Your task to perform on an android device: install app "Google Find My Device" Image 0: 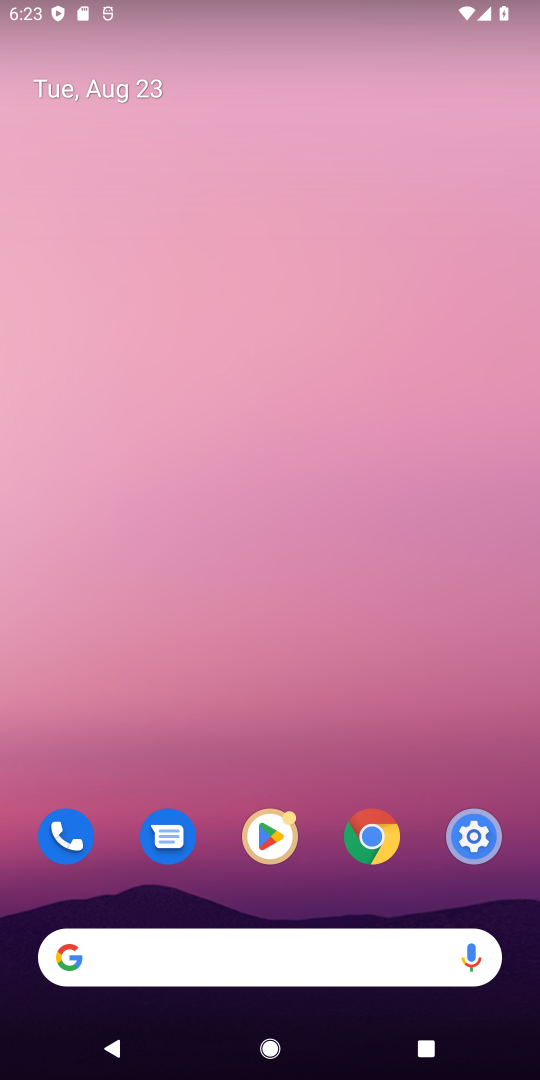
Step 0: click (270, 838)
Your task to perform on an android device: install app "Google Find My Device" Image 1: 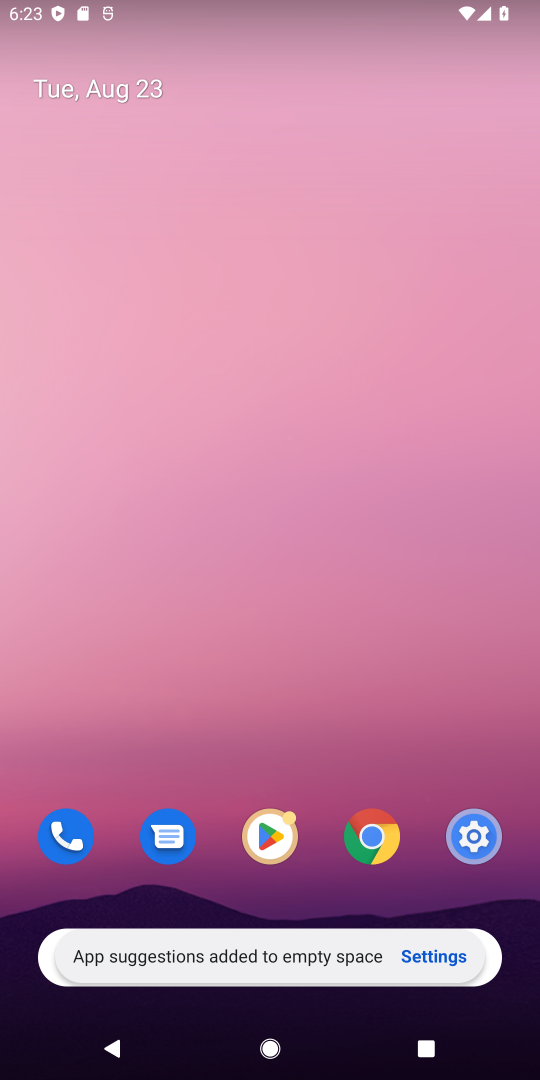
Step 1: click (270, 841)
Your task to perform on an android device: install app "Google Find My Device" Image 2: 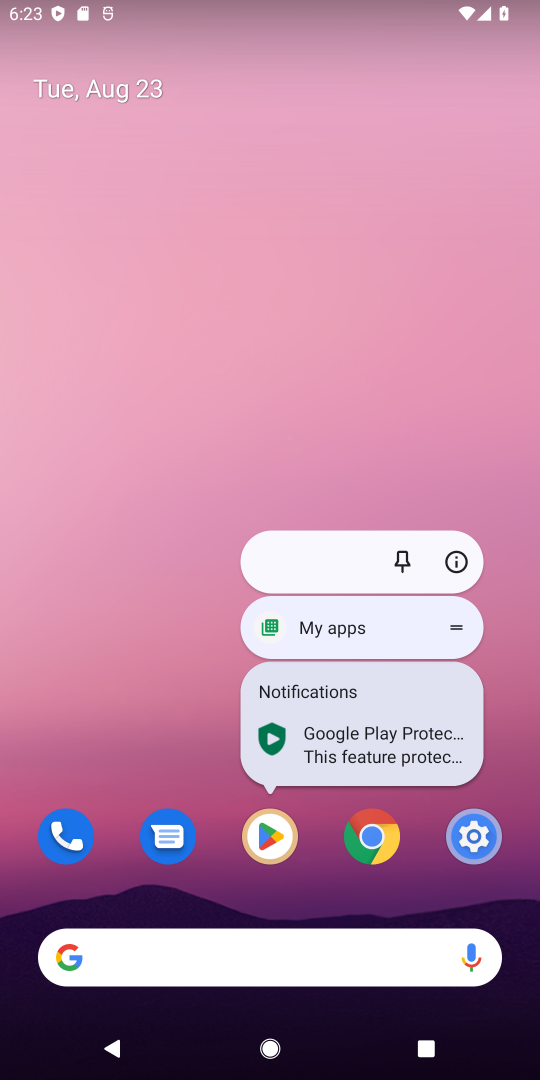
Step 2: click (270, 845)
Your task to perform on an android device: install app "Google Find My Device" Image 3: 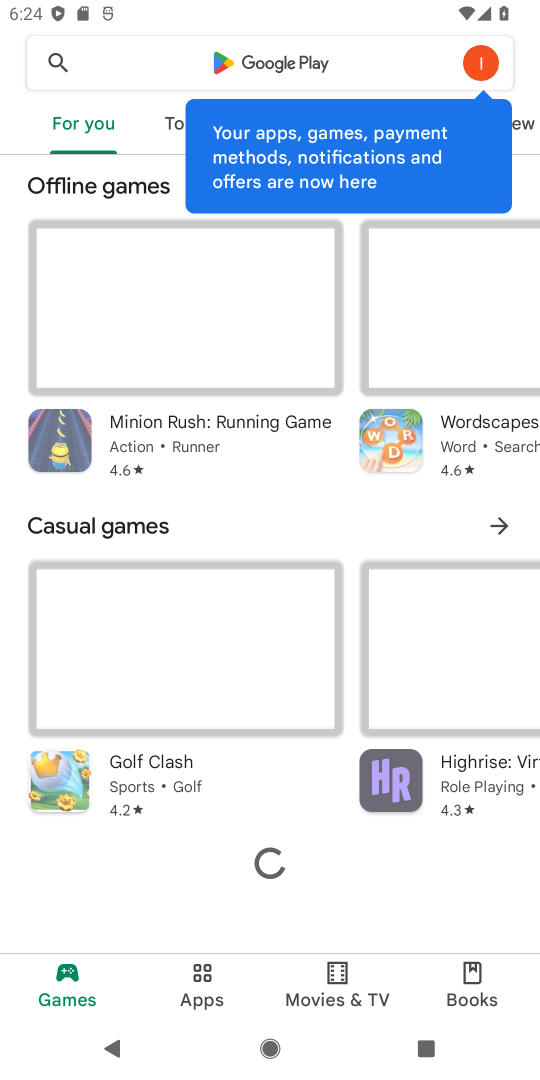
Step 3: click (285, 59)
Your task to perform on an android device: install app "Google Find My Device" Image 4: 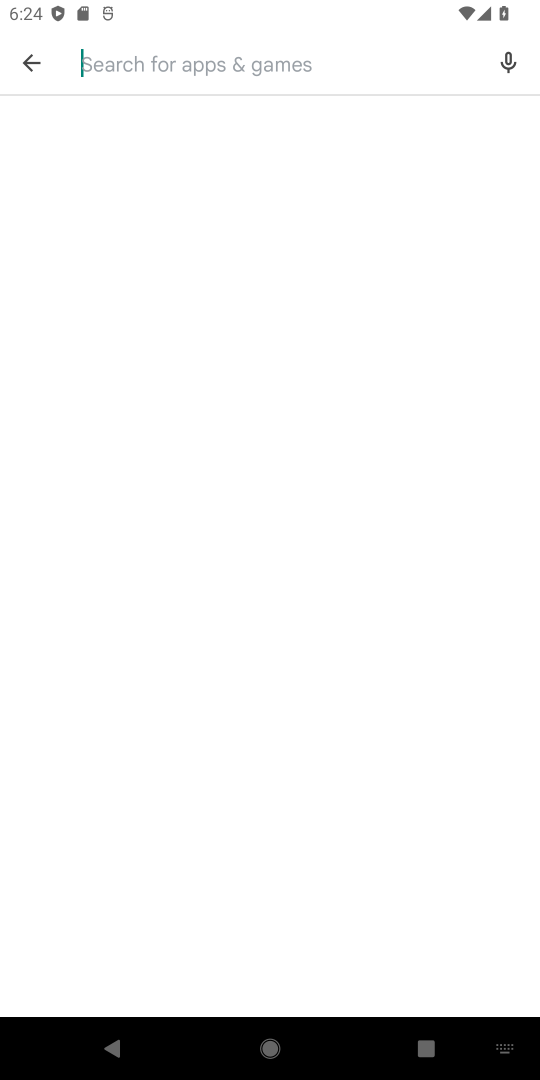
Step 4: type "Google Find My Device"
Your task to perform on an android device: install app "Google Find My Device" Image 5: 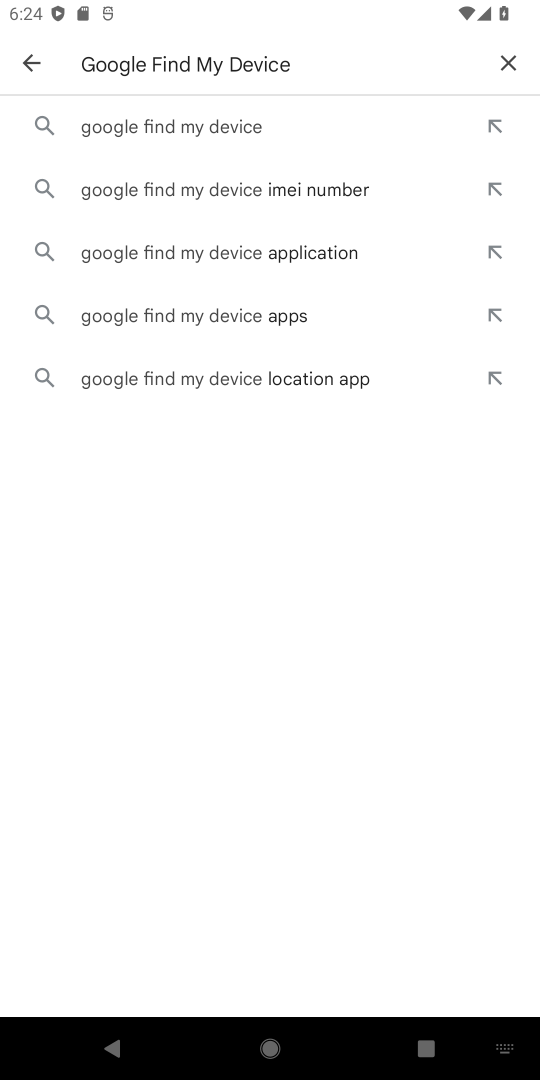
Step 5: click (222, 127)
Your task to perform on an android device: install app "Google Find My Device" Image 6: 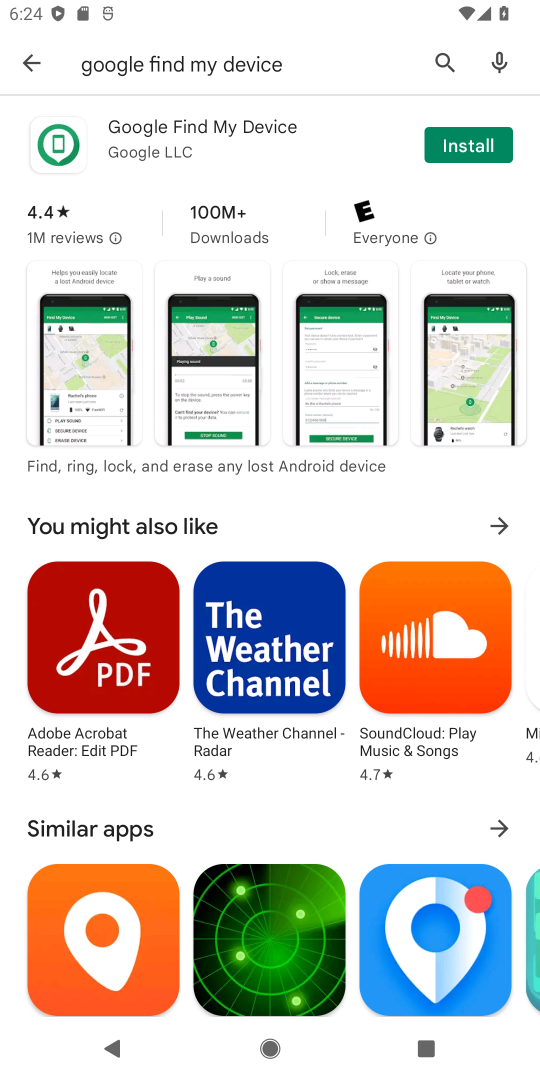
Step 6: click (466, 144)
Your task to perform on an android device: install app "Google Find My Device" Image 7: 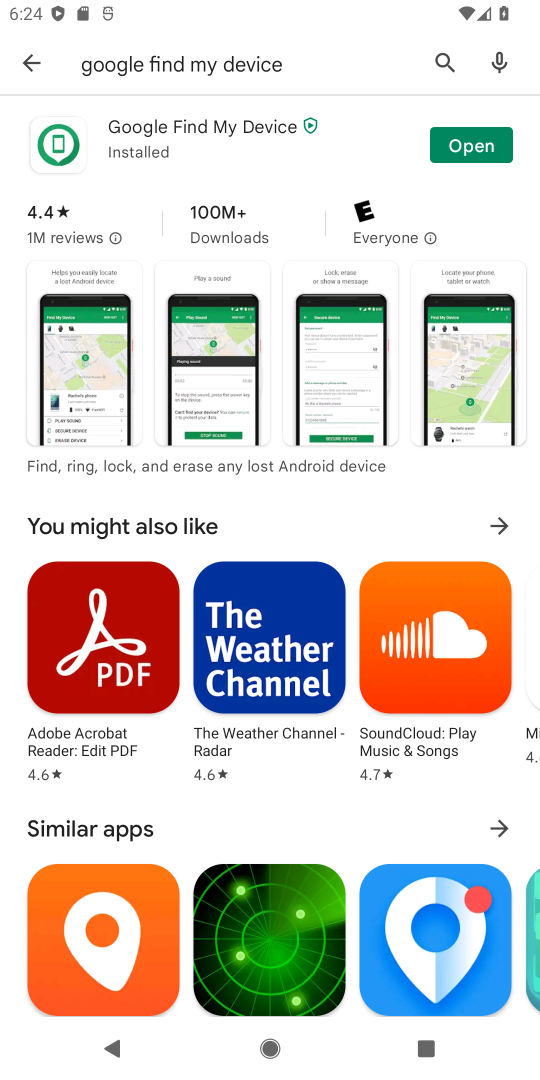
Step 7: task complete